Your task to perform on an android device: Show me the alarms in the clock app Image 0: 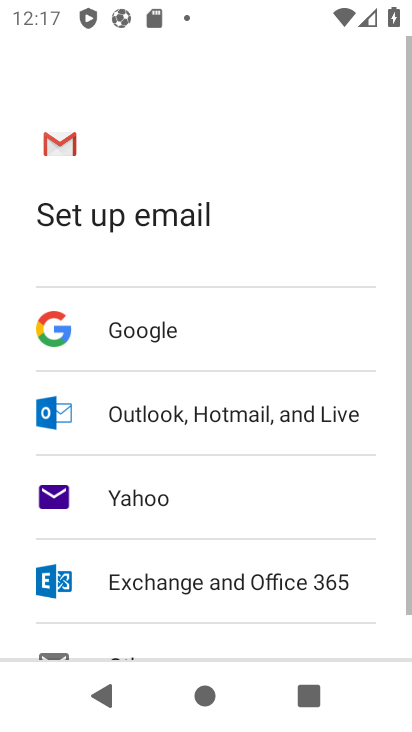
Step 0: press home button
Your task to perform on an android device: Show me the alarms in the clock app Image 1: 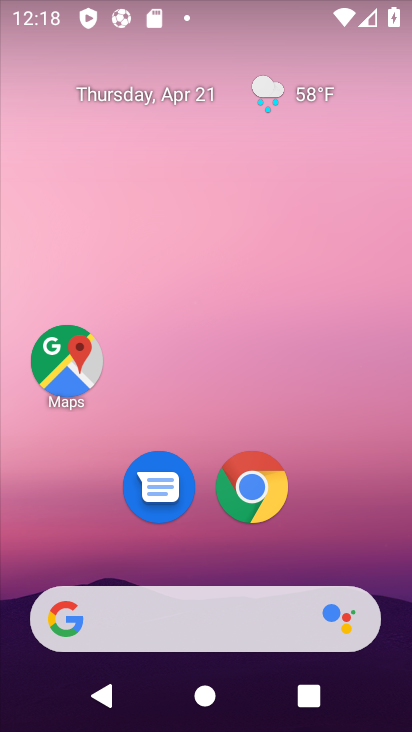
Step 1: drag from (367, 568) to (368, 11)
Your task to perform on an android device: Show me the alarms in the clock app Image 2: 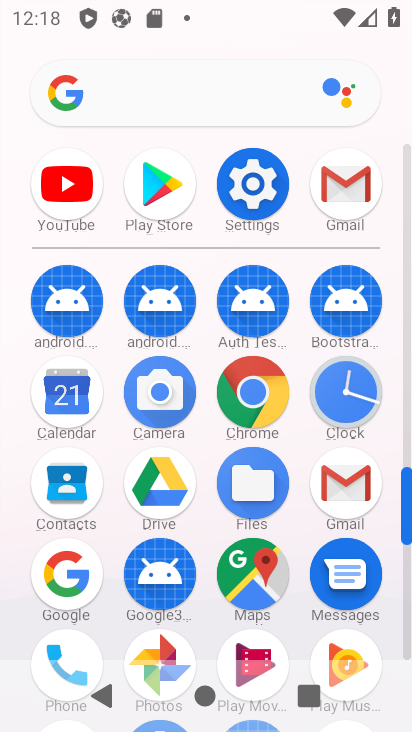
Step 2: click (345, 397)
Your task to perform on an android device: Show me the alarms in the clock app Image 3: 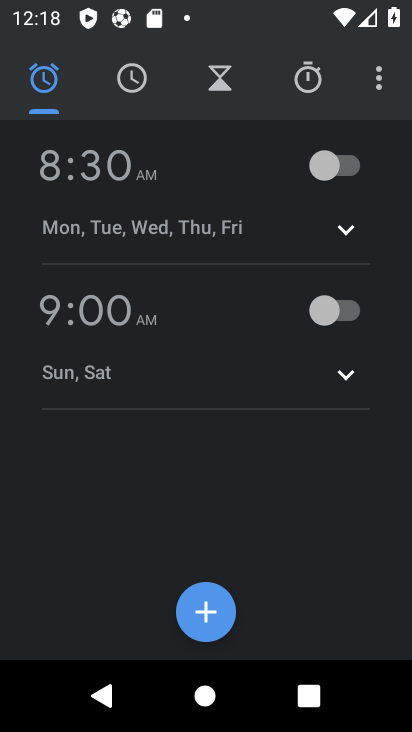
Step 3: click (43, 83)
Your task to perform on an android device: Show me the alarms in the clock app Image 4: 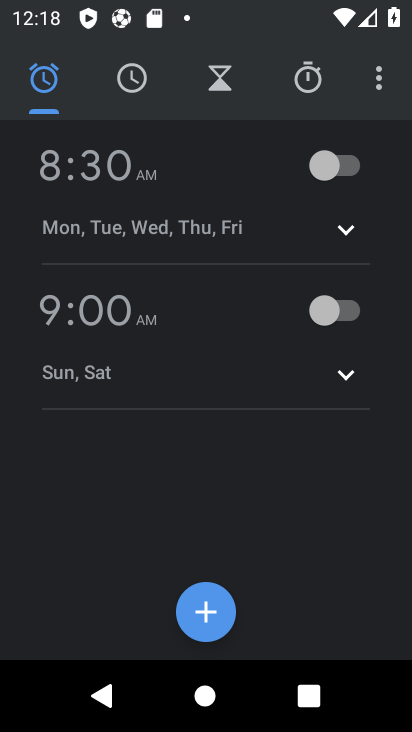
Step 4: task complete